Your task to perform on an android device: Search for a coffee table on Crate & Barrel Image 0: 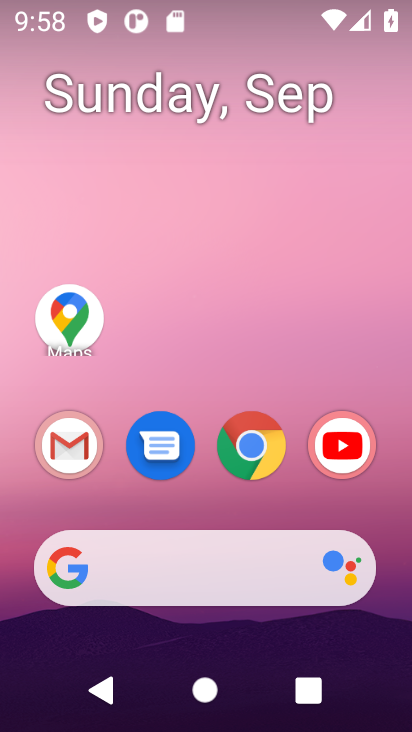
Step 0: click (92, 110)
Your task to perform on an android device: Search for a coffee table on Crate & Barrel Image 1: 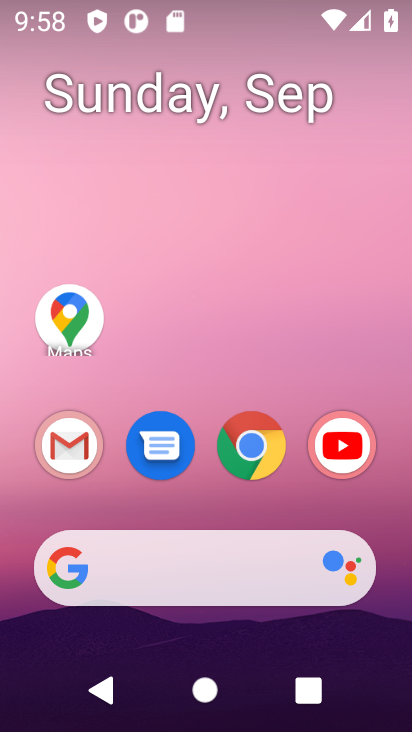
Step 1: drag from (305, 631) to (202, 109)
Your task to perform on an android device: Search for a coffee table on Crate & Barrel Image 2: 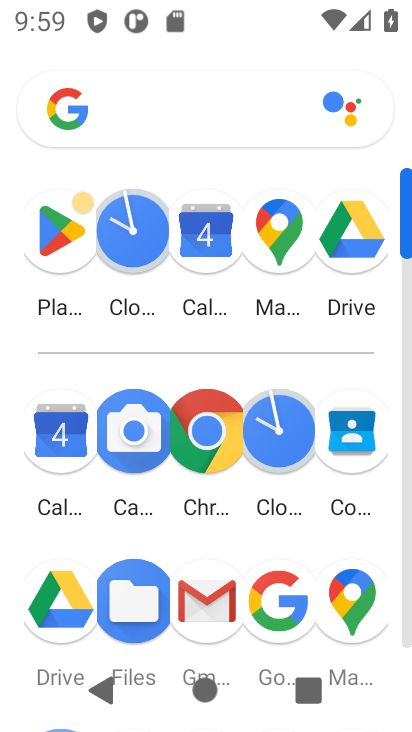
Step 2: click (191, 410)
Your task to perform on an android device: Search for a coffee table on Crate & Barrel Image 3: 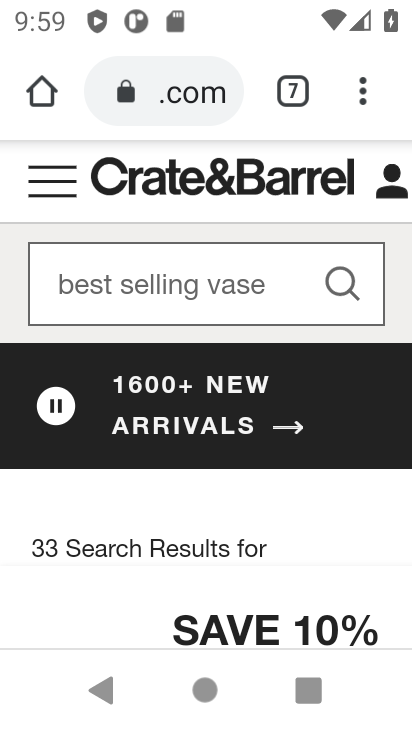
Step 3: click (167, 81)
Your task to perform on an android device: Search for a coffee table on Crate & Barrel Image 4: 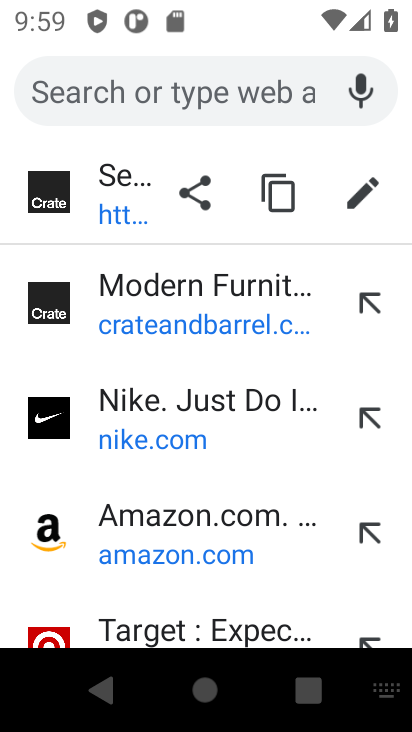
Step 4: type " Crate & Barrel"
Your task to perform on an android device: Search for a coffee table on Crate & Barrel Image 5: 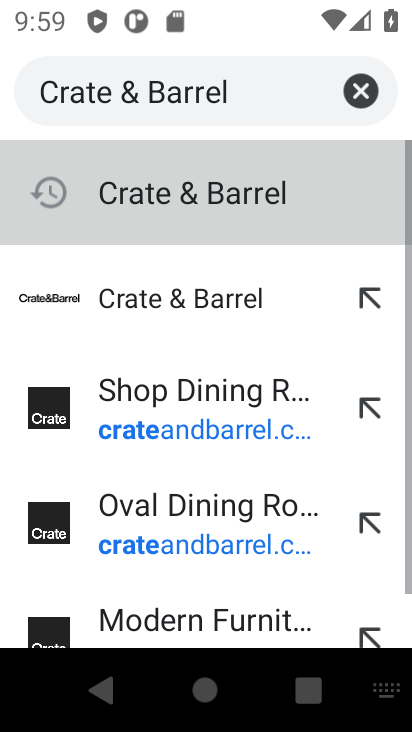
Step 5: press enter
Your task to perform on an android device: Search for a coffee table on Crate & Barrel Image 6: 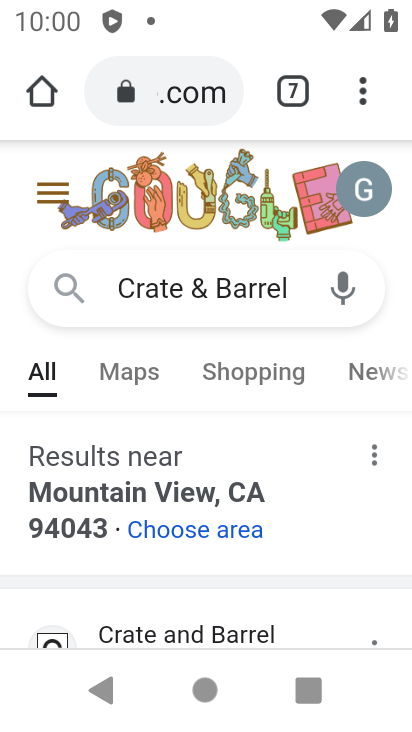
Step 6: click (52, 167)
Your task to perform on an android device: Search for a coffee table on Crate & Barrel Image 7: 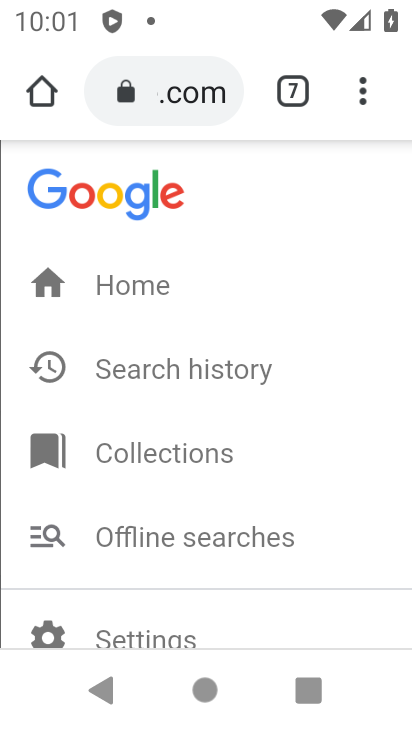
Step 7: click (197, 86)
Your task to perform on an android device: Search for a coffee table on Crate & Barrel Image 8: 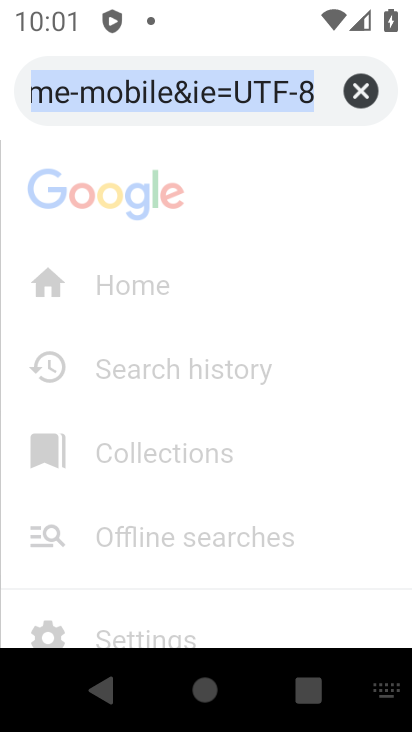
Step 8: click (364, 93)
Your task to perform on an android device: Search for a coffee table on Crate & Barrel Image 9: 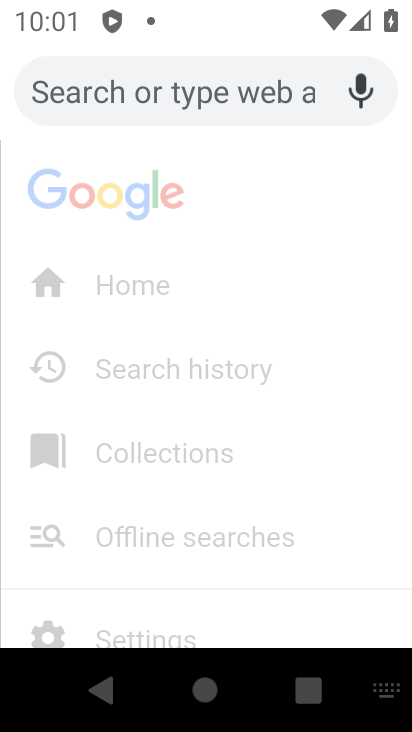
Step 9: type "Crate & Barrel"
Your task to perform on an android device: Search for a coffee table on Crate & Barrel Image 10: 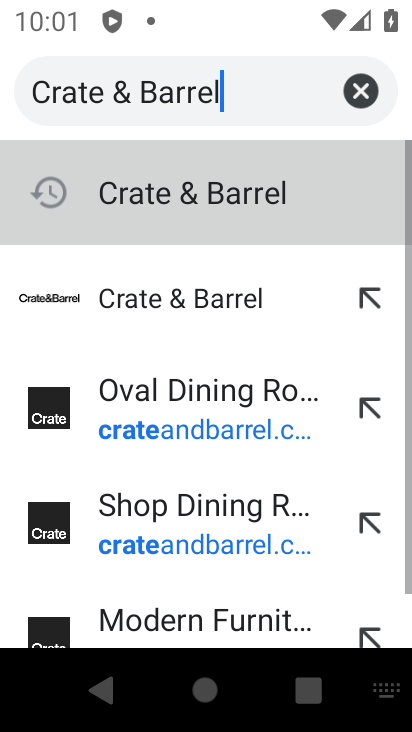
Step 10: press enter
Your task to perform on an android device: Search for a coffee table on Crate & Barrel Image 11: 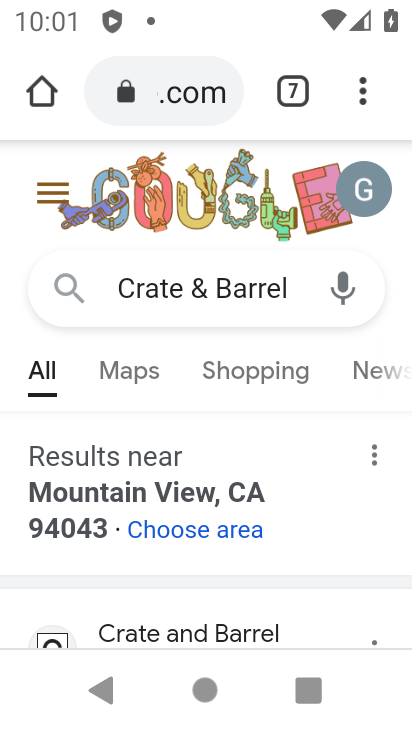
Step 11: drag from (267, 565) to (260, 201)
Your task to perform on an android device: Search for a coffee table on Crate & Barrel Image 12: 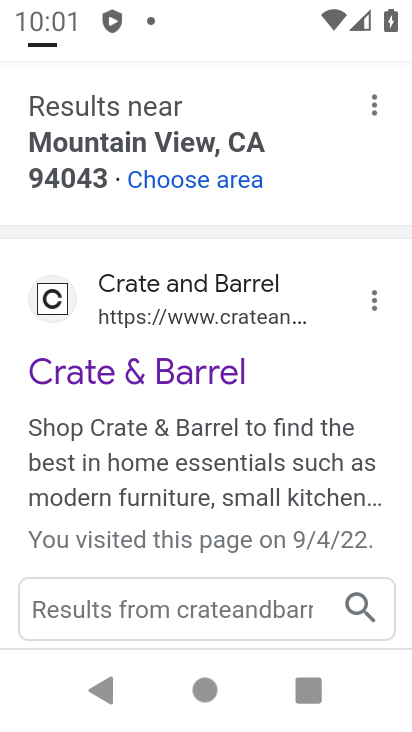
Step 12: click (120, 369)
Your task to perform on an android device: Search for a coffee table on Crate & Barrel Image 13: 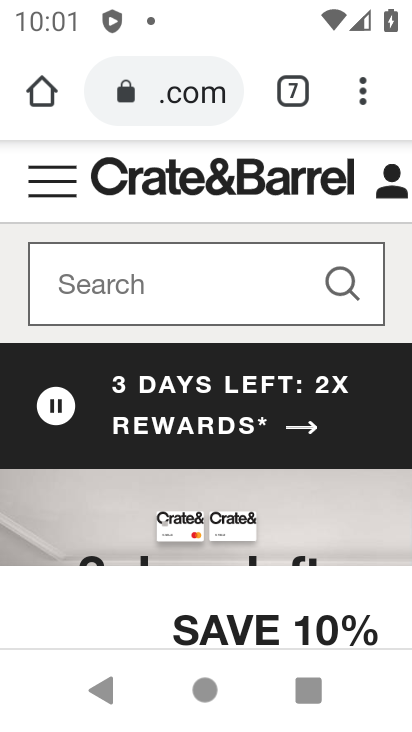
Step 13: drag from (221, 555) to (190, 228)
Your task to perform on an android device: Search for a coffee table on Crate & Barrel Image 14: 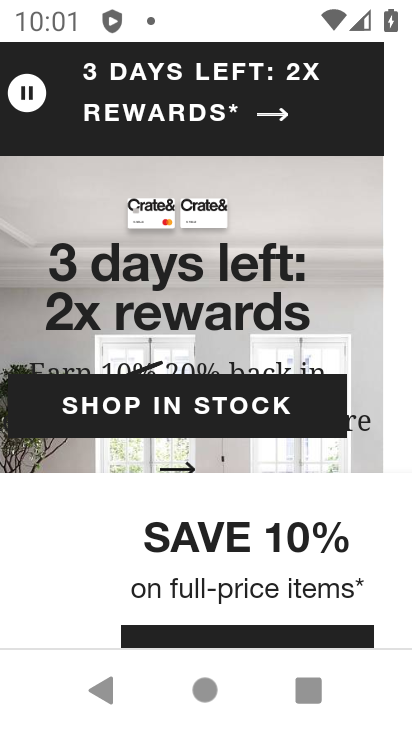
Step 14: drag from (179, 363) to (223, 494)
Your task to perform on an android device: Search for a coffee table on Crate & Barrel Image 15: 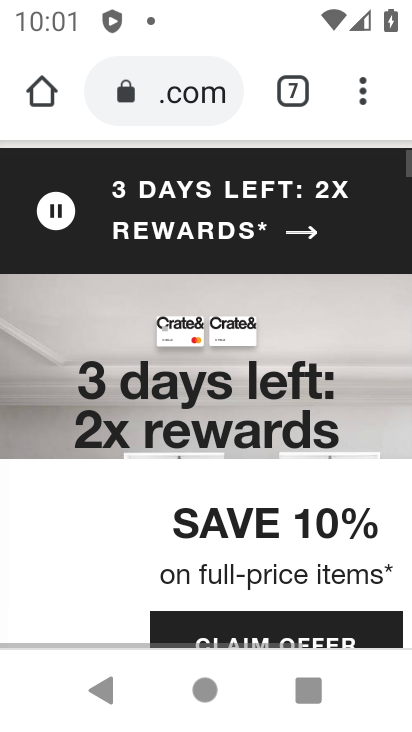
Step 15: drag from (131, 160) to (213, 477)
Your task to perform on an android device: Search for a coffee table on Crate & Barrel Image 16: 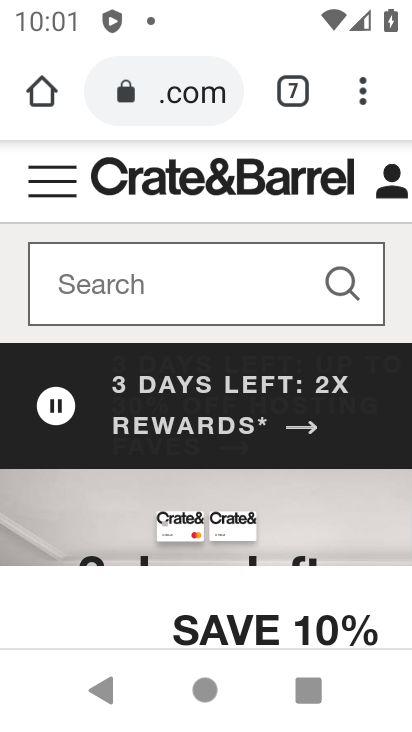
Step 16: click (120, 306)
Your task to perform on an android device: Search for a coffee table on Crate & Barrel Image 17: 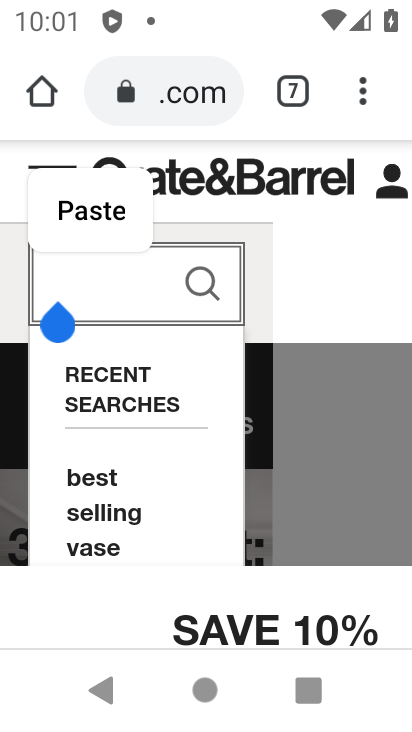
Step 17: type "coffee table"
Your task to perform on an android device: Search for a coffee table on Crate & Barrel Image 18: 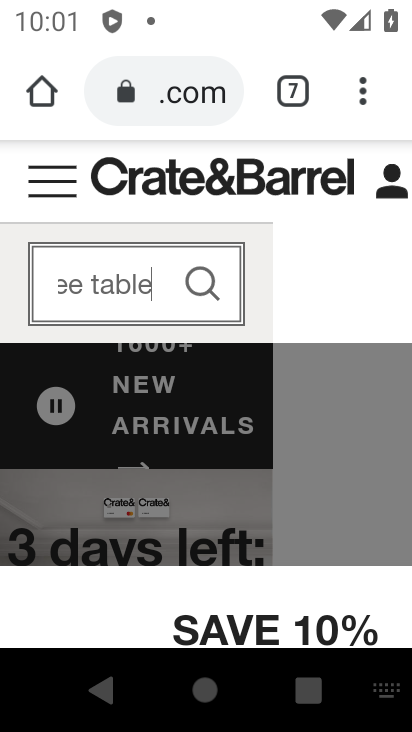
Step 18: press enter
Your task to perform on an android device: Search for a coffee table on Crate & Barrel Image 19: 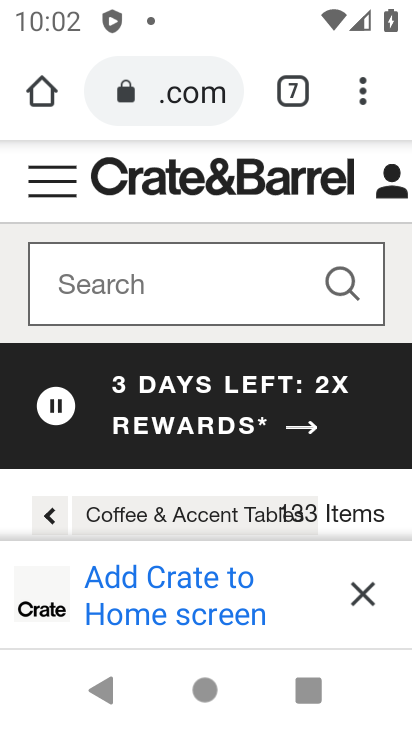
Step 19: drag from (214, 412) to (278, 102)
Your task to perform on an android device: Search for a coffee table on Crate & Barrel Image 20: 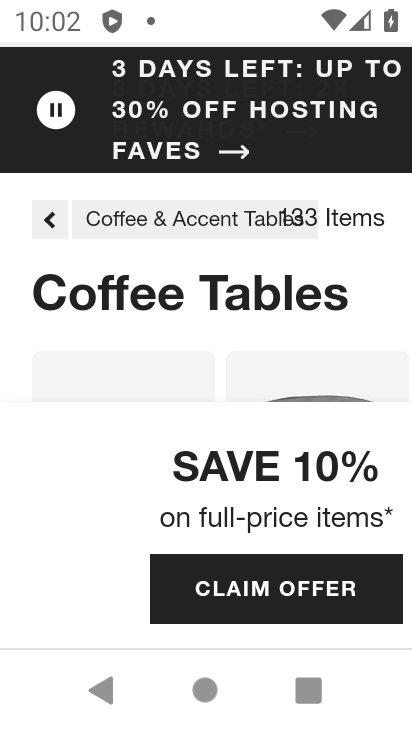
Step 20: drag from (319, 453) to (313, 211)
Your task to perform on an android device: Search for a coffee table on Crate & Barrel Image 21: 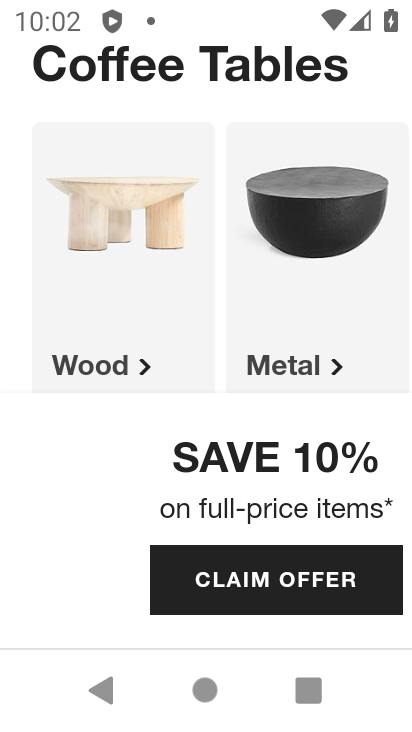
Step 21: click (237, 215)
Your task to perform on an android device: Search for a coffee table on Crate & Barrel Image 22: 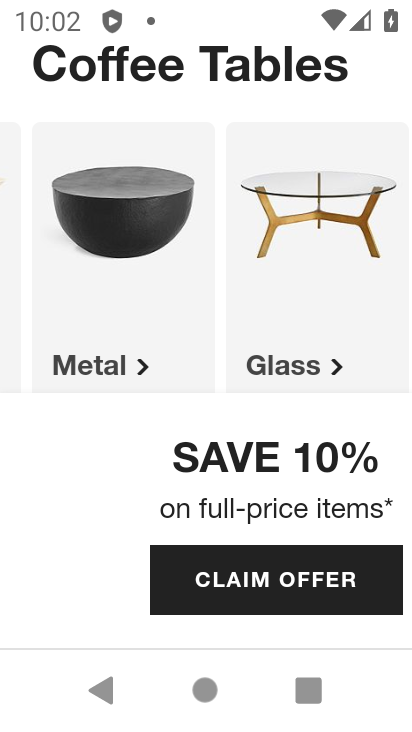
Step 22: task complete